Your task to perform on an android device: stop showing notifications on the lock screen Image 0: 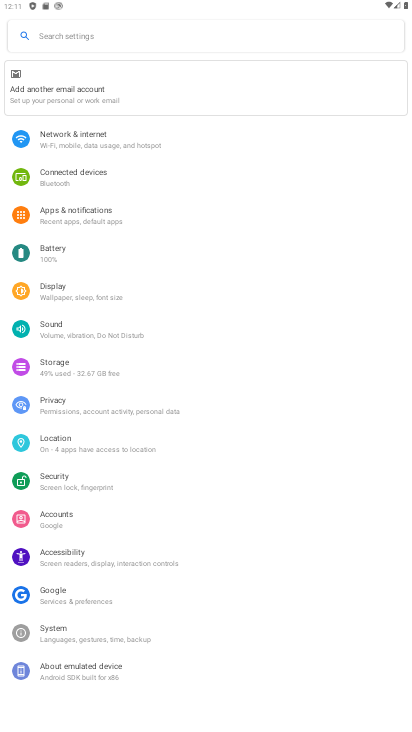
Step 0: press home button
Your task to perform on an android device: stop showing notifications on the lock screen Image 1: 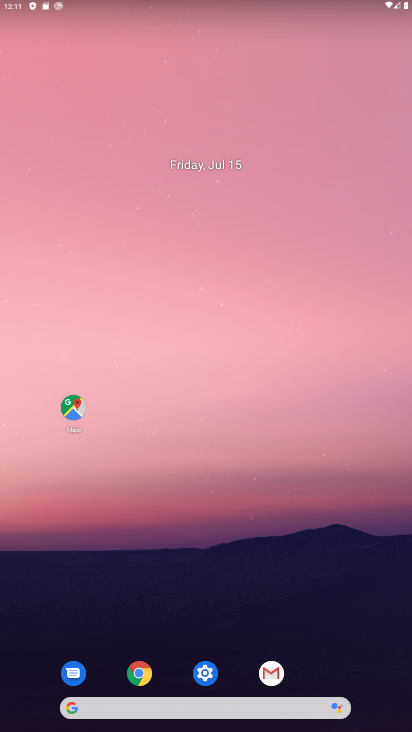
Step 1: click (206, 671)
Your task to perform on an android device: stop showing notifications on the lock screen Image 2: 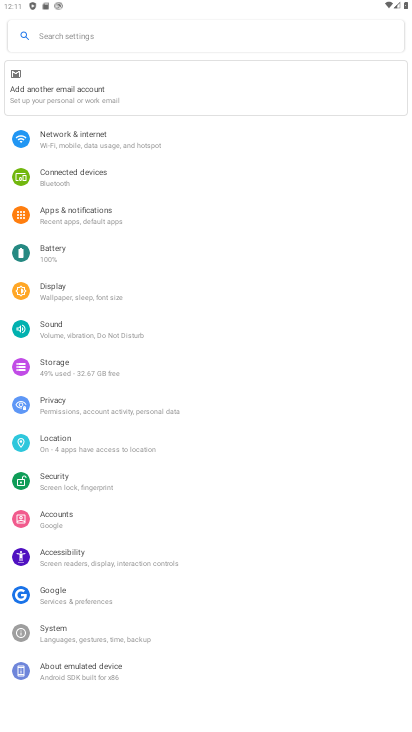
Step 2: click (123, 35)
Your task to perform on an android device: stop showing notifications on the lock screen Image 3: 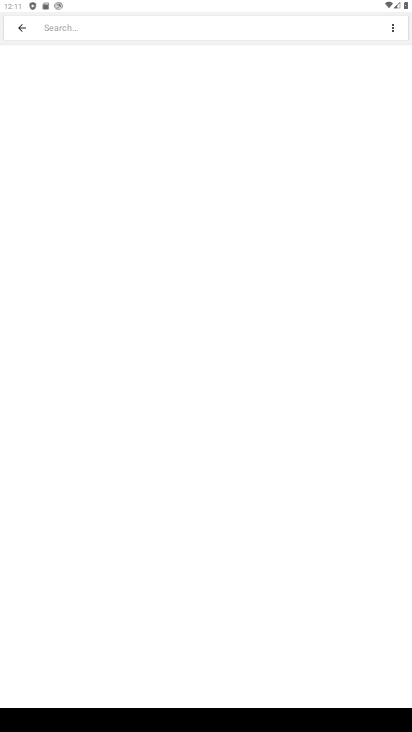
Step 3: drag from (385, 724) to (335, 649)
Your task to perform on an android device: stop showing notifications on the lock screen Image 4: 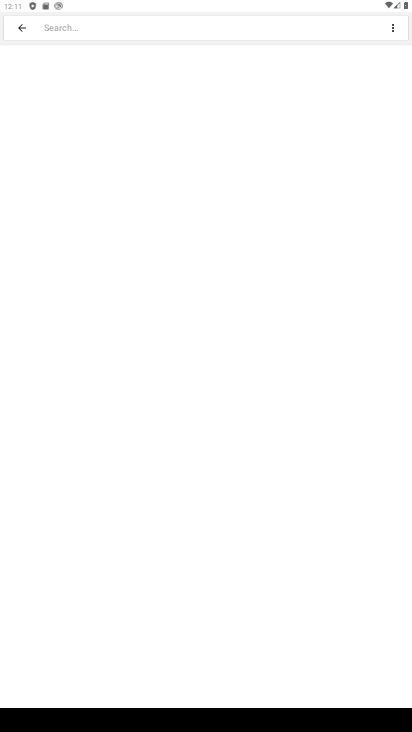
Step 4: click (374, 725)
Your task to perform on an android device: stop showing notifications on the lock screen Image 5: 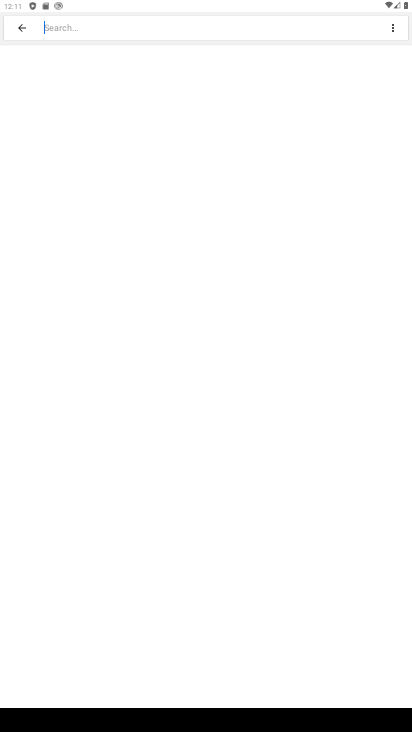
Step 5: drag from (382, 720) to (357, 616)
Your task to perform on an android device: stop showing notifications on the lock screen Image 6: 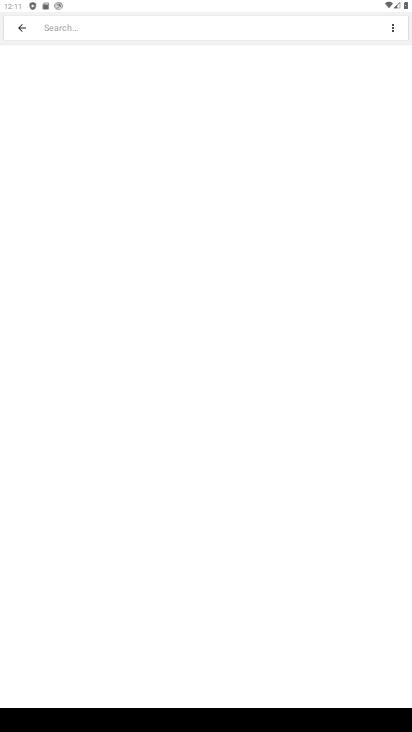
Step 6: drag from (378, 725) to (362, 665)
Your task to perform on an android device: stop showing notifications on the lock screen Image 7: 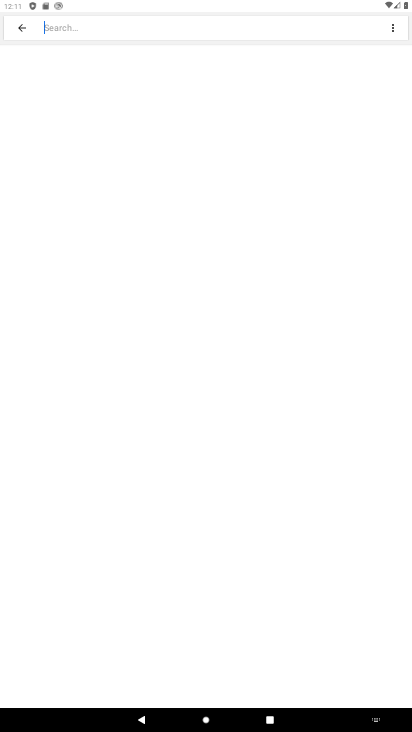
Step 7: click (382, 724)
Your task to perform on an android device: stop showing notifications on the lock screen Image 8: 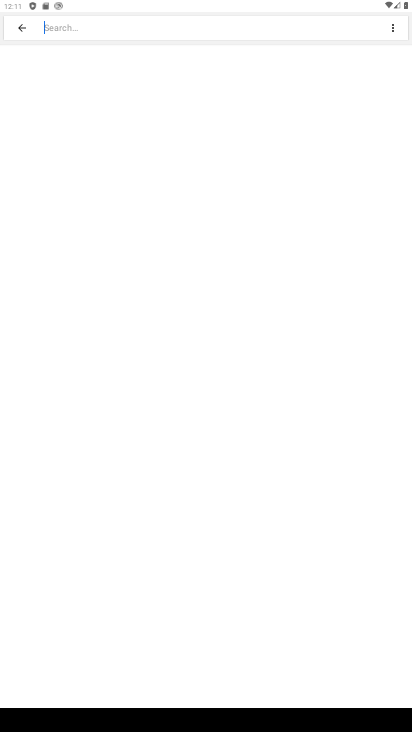
Step 8: drag from (332, 545) to (314, 501)
Your task to perform on an android device: stop showing notifications on the lock screen Image 9: 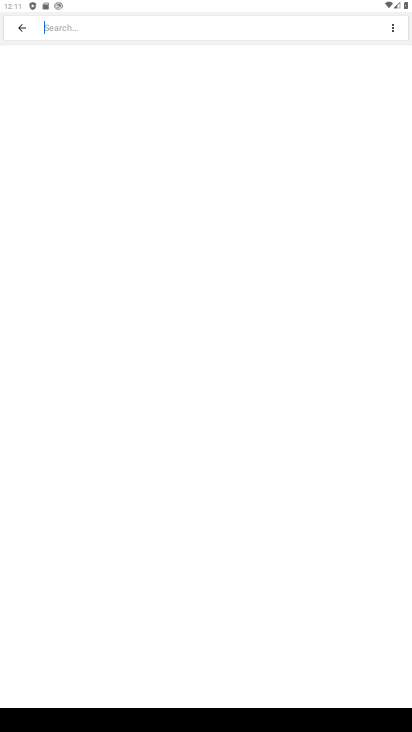
Step 9: drag from (381, 724) to (380, 672)
Your task to perform on an android device: stop showing notifications on the lock screen Image 10: 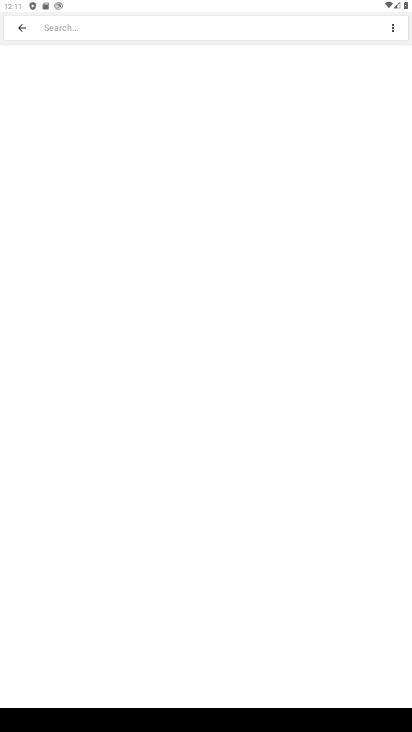
Step 10: drag from (389, 724) to (381, 673)
Your task to perform on an android device: stop showing notifications on the lock screen Image 11: 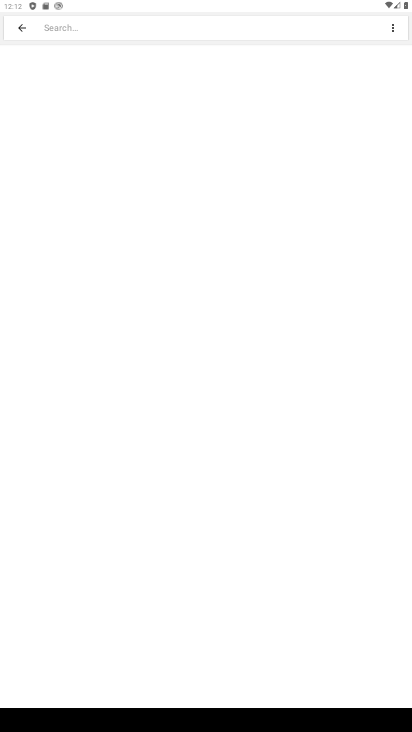
Step 11: drag from (378, 709) to (304, 512)
Your task to perform on an android device: stop showing notifications on the lock screen Image 12: 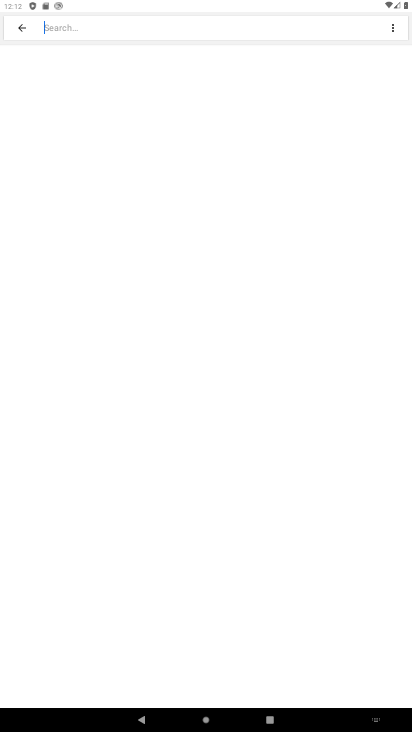
Step 12: click (375, 725)
Your task to perform on an android device: stop showing notifications on the lock screen Image 13: 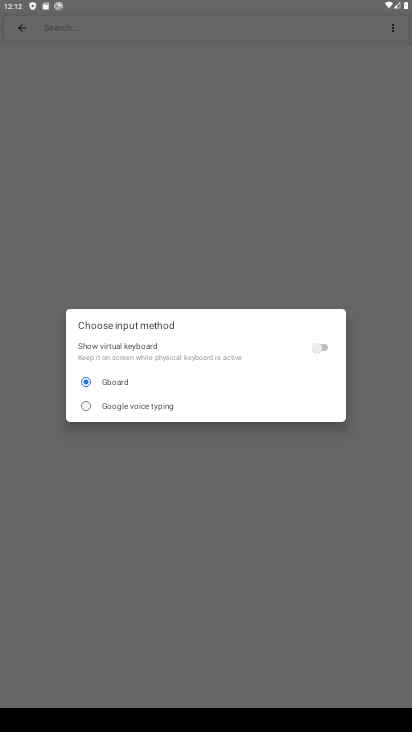
Step 13: click (330, 350)
Your task to perform on an android device: stop showing notifications on the lock screen Image 14: 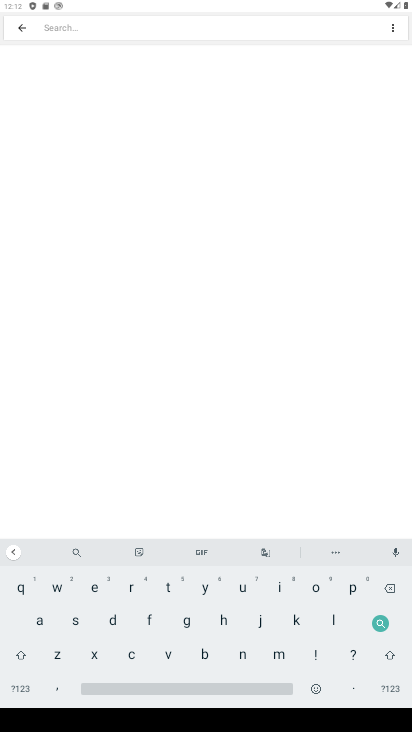
Step 14: click (99, 22)
Your task to perform on an android device: stop showing notifications on the lock screen Image 15: 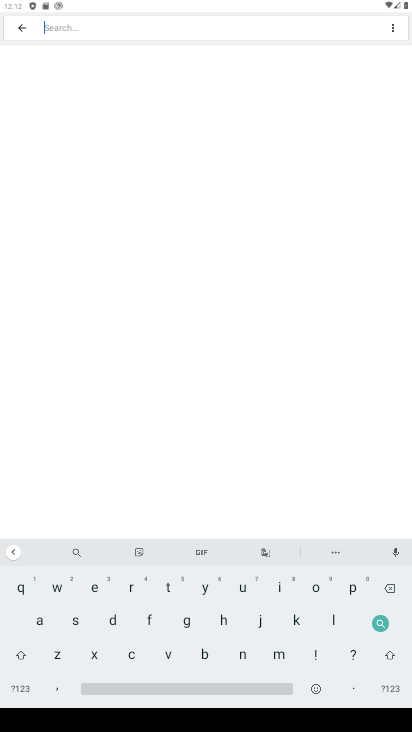
Step 15: click (245, 649)
Your task to perform on an android device: stop showing notifications on the lock screen Image 16: 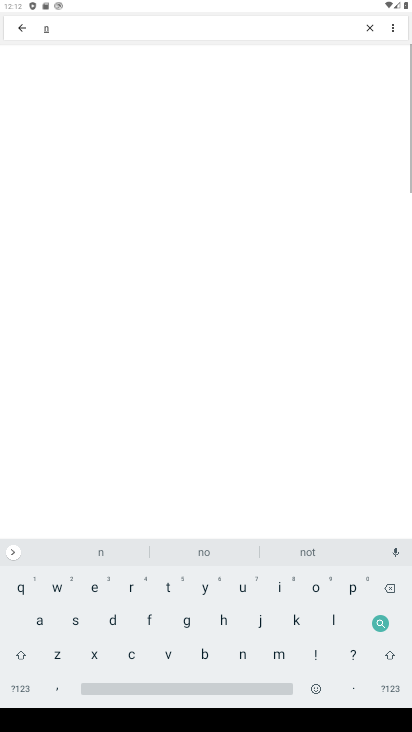
Step 16: click (316, 591)
Your task to perform on an android device: stop showing notifications on the lock screen Image 17: 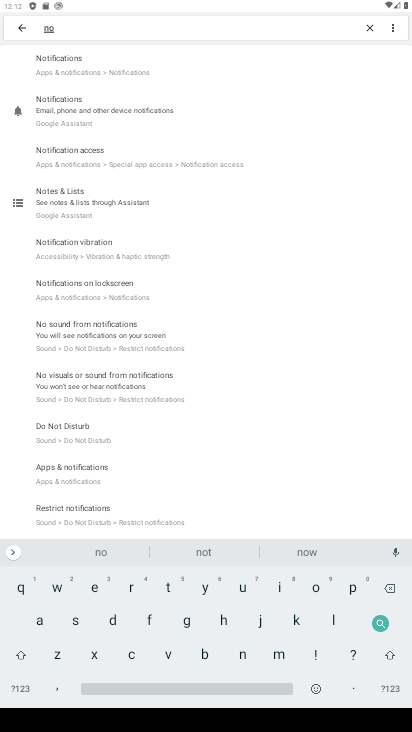
Step 17: click (74, 79)
Your task to perform on an android device: stop showing notifications on the lock screen Image 18: 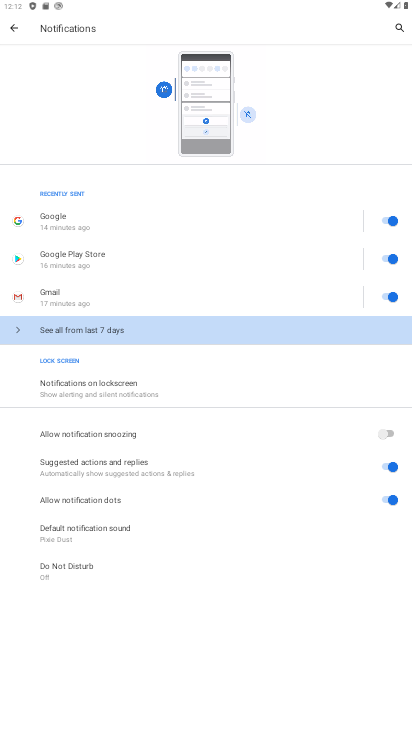
Step 18: click (100, 384)
Your task to perform on an android device: stop showing notifications on the lock screen Image 19: 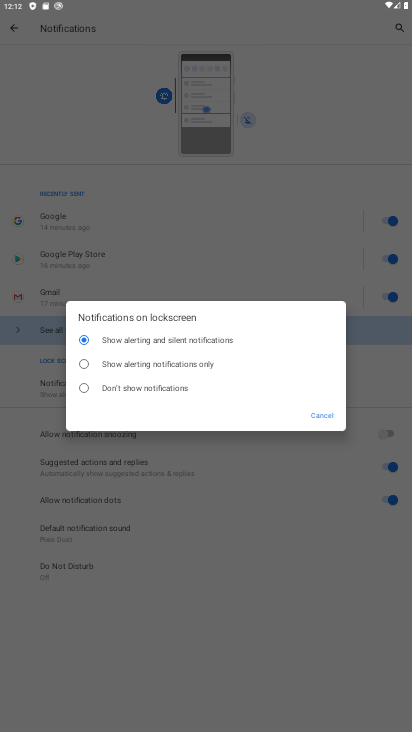
Step 19: click (111, 388)
Your task to perform on an android device: stop showing notifications on the lock screen Image 20: 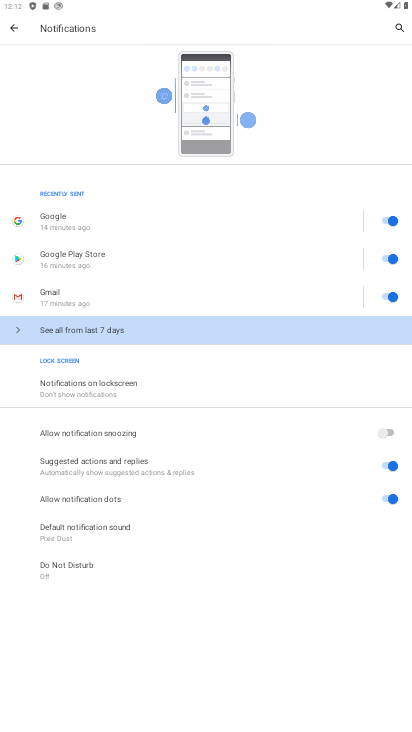
Step 20: task complete